Your task to perform on an android device: change timer sound Image 0: 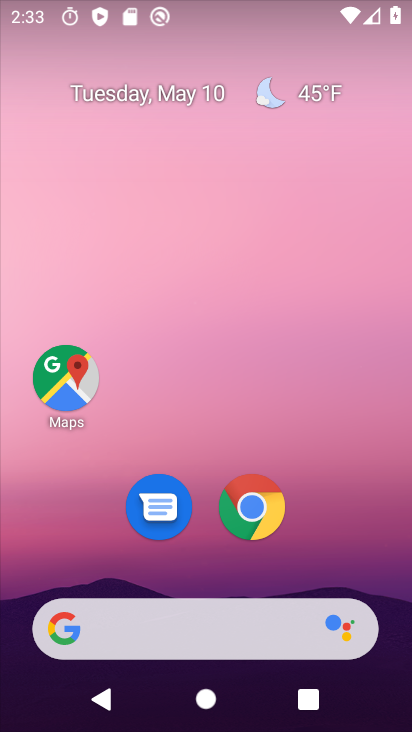
Step 0: drag from (209, 9) to (235, 397)
Your task to perform on an android device: change timer sound Image 1: 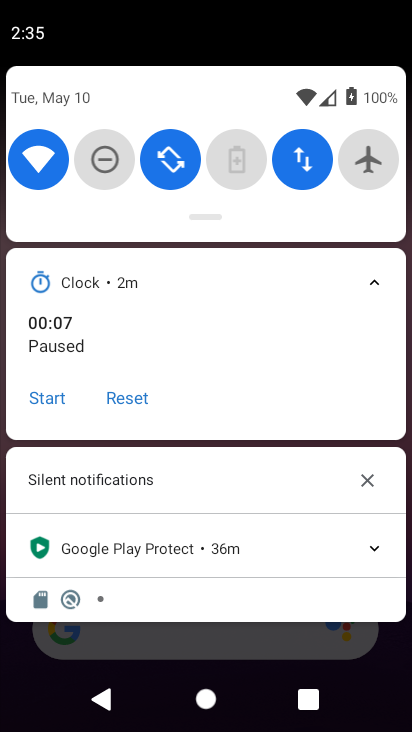
Step 1: drag from (241, 174) to (308, 499)
Your task to perform on an android device: change timer sound Image 2: 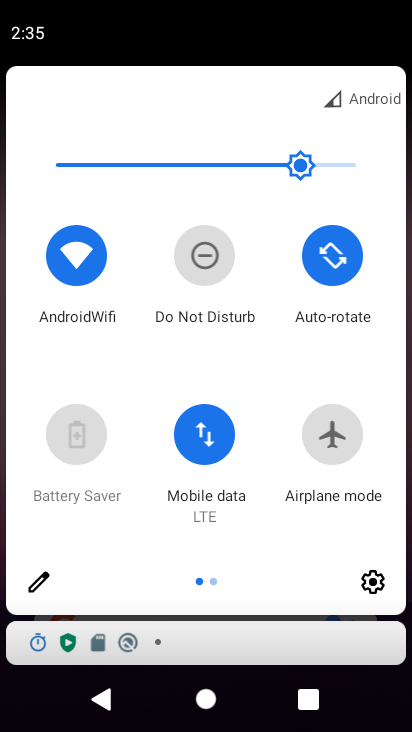
Step 2: drag from (381, 337) to (7, 436)
Your task to perform on an android device: change timer sound Image 3: 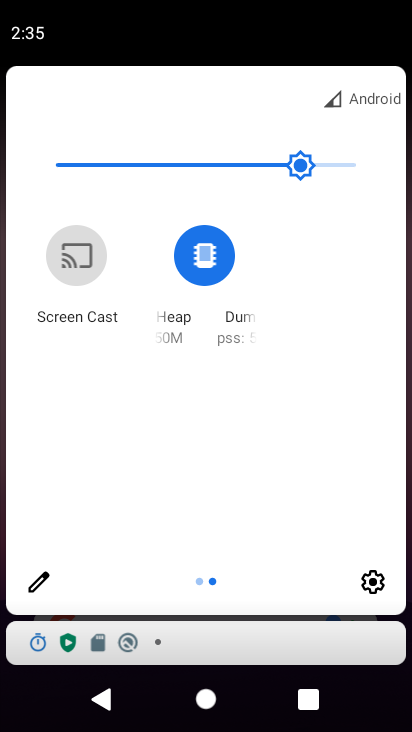
Step 3: click (37, 581)
Your task to perform on an android device: change timer sound Image 4: 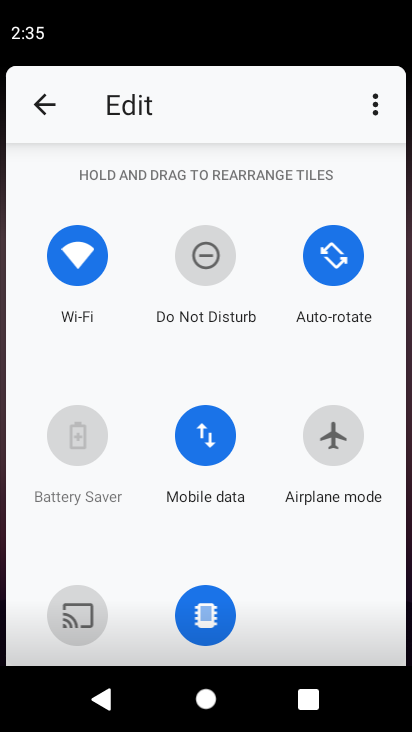
Step 4: task complete